Your task to perform on an android device: Open my contact list Image 0: 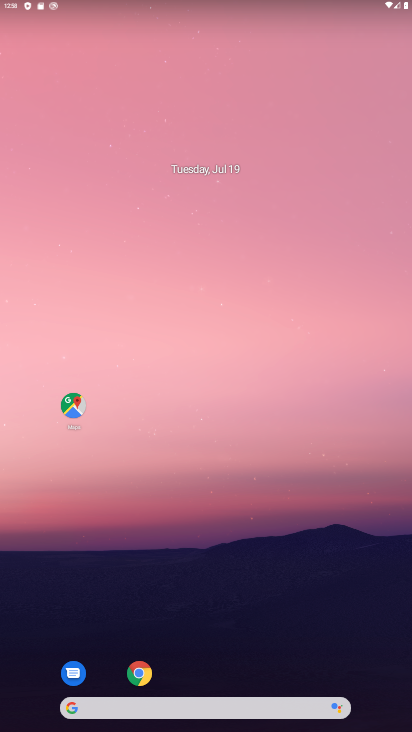
Step 0: click (141, 675)
Your task to perform on an android device: Open my contact list Image 1: 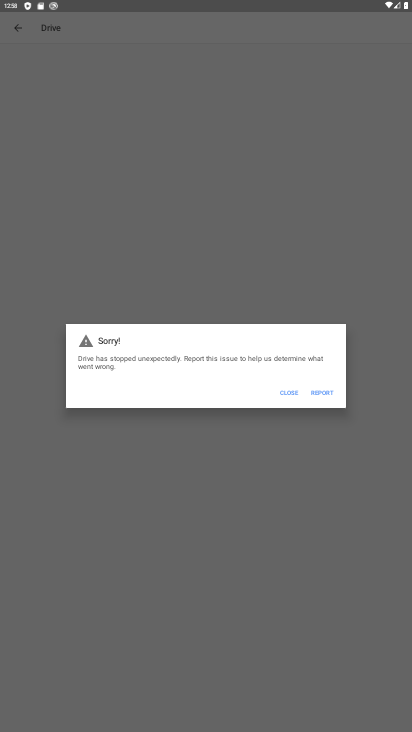
Step 1: press home button
Your task to perform on an android device: Open my contact list Image 2: 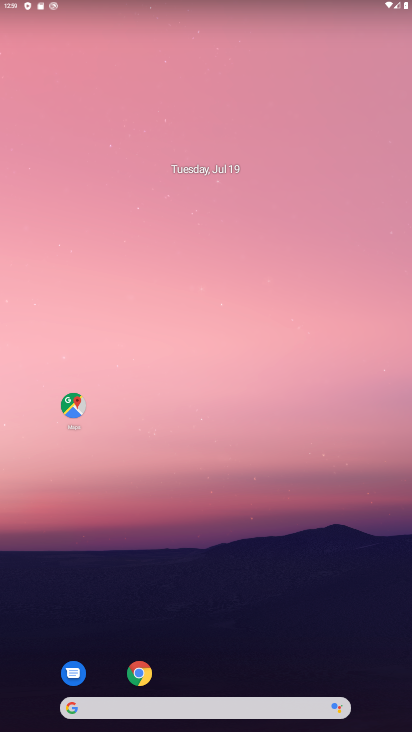
Step 2: drag from (197, 687) to (70, 87)
Your task to perform on an android device: Open my contact list Image 3: 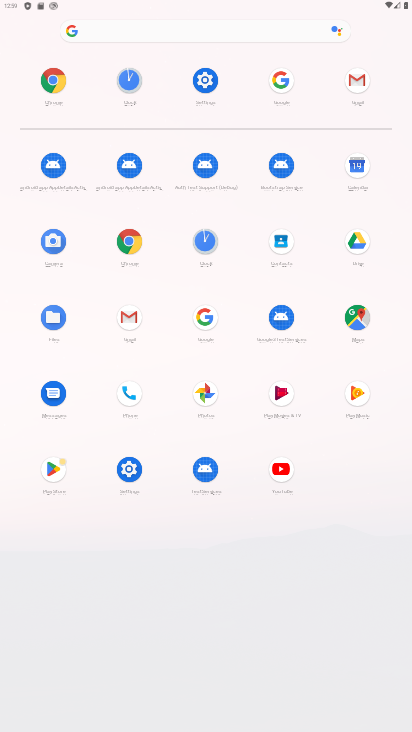
Step 3: click (133, 399)
Your task to perform on an android device: Open my contact list Image 4: 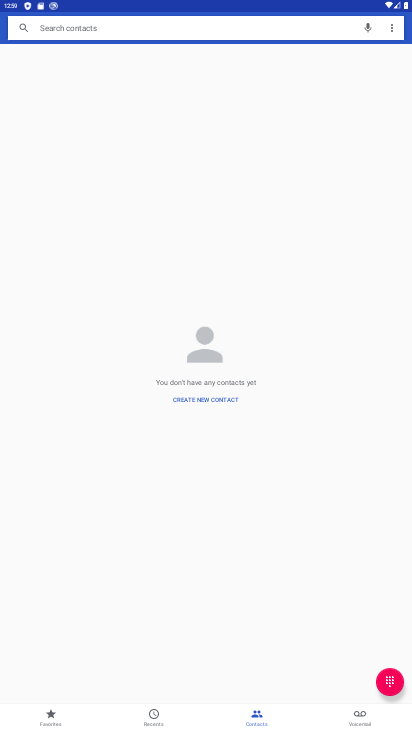
Step 4: click (257, 709)
Your task to perform on an android device: Open my contact list Image 5: 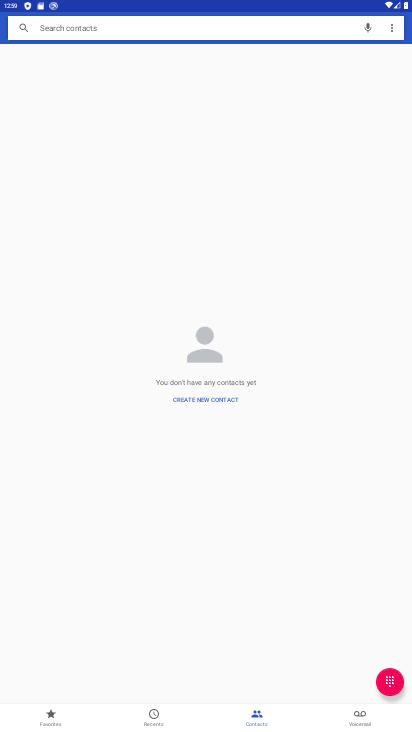
Step 5: task complete